Your task to perform on an android device: Show me recent news Image 0: 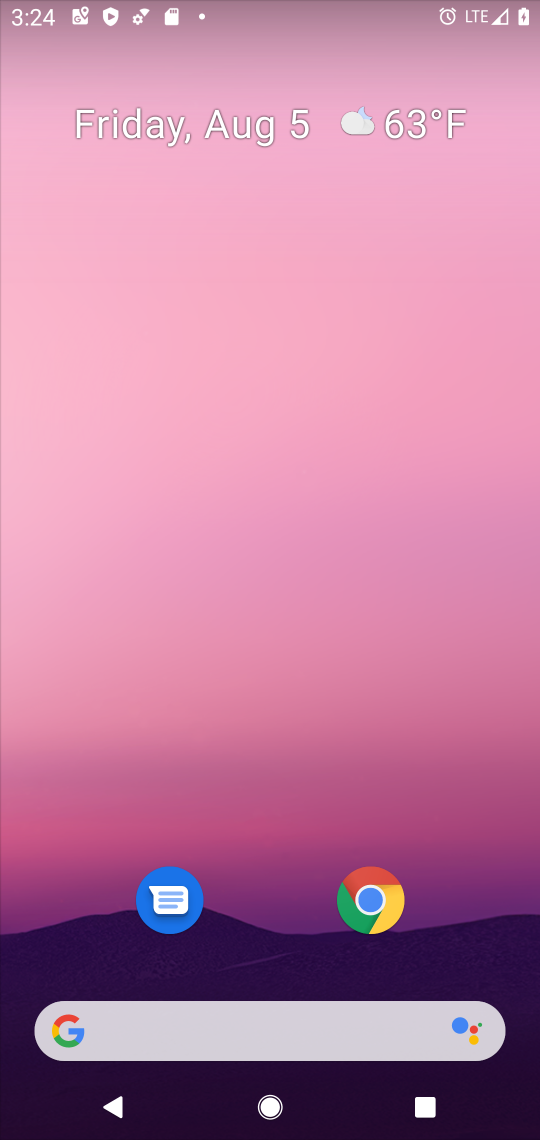
Step 0: click (215, 1026)
Your task to perform on an android device: Show me recent news Image 1: 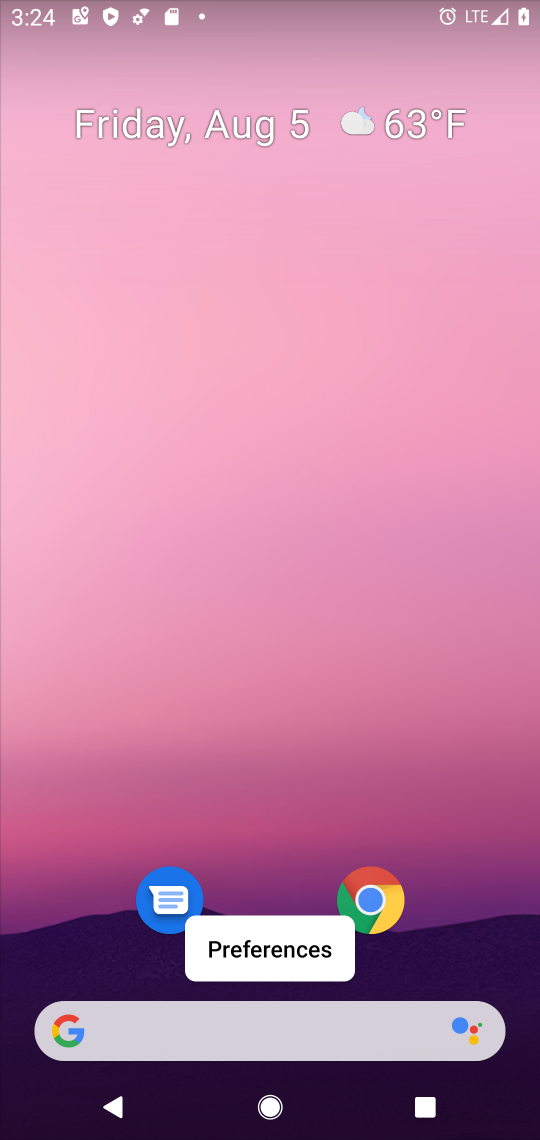
Step 1: click (244, 1055)
Your task to perform on an android device: Show me recent news Image 2: 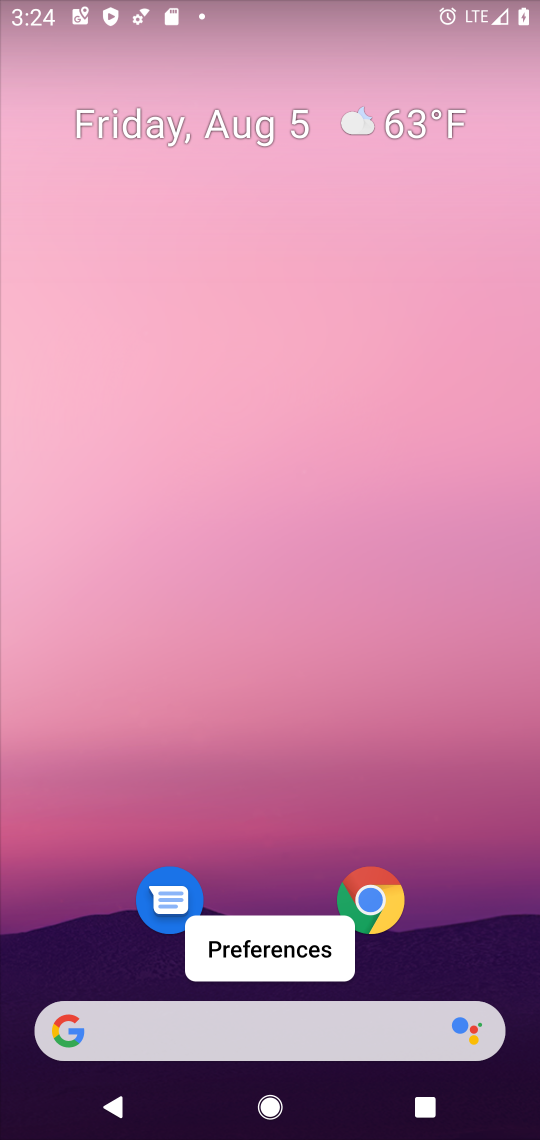
Step 2: click (246, 1027)
Your task to perform on an android device: Show me recent news Image 3: 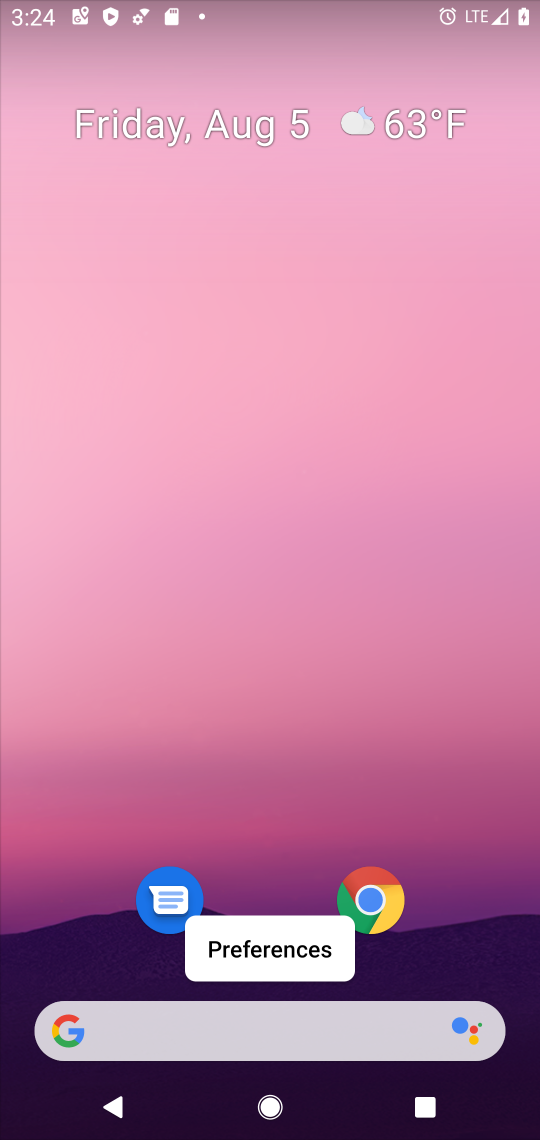
Step 3: click (211, 1030)
Your task to perform on an android device: Show me recent news Image 4: 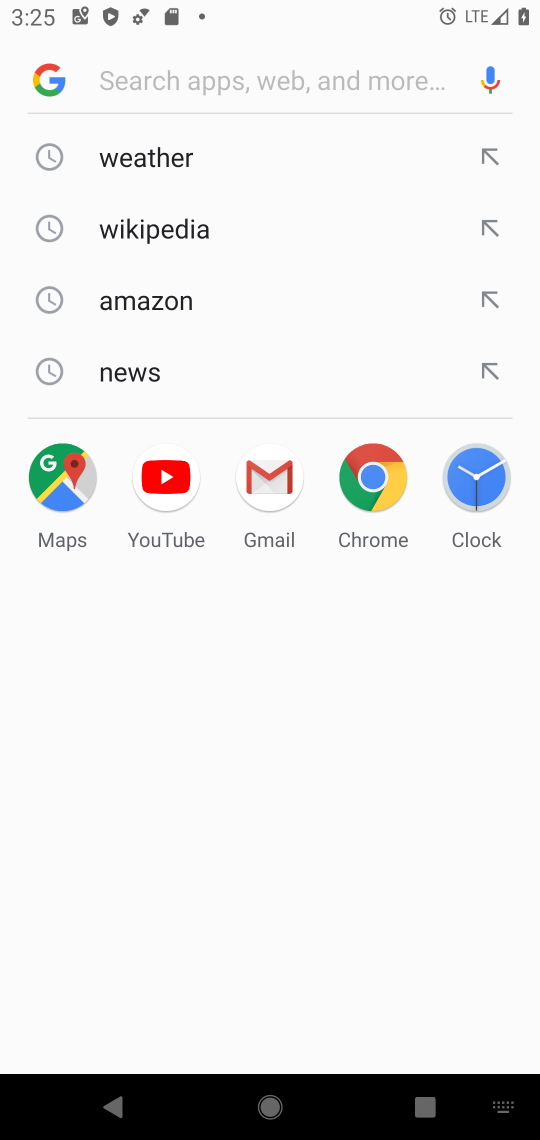
Step 4: click (213, 81)
Your task to perform on an android device: Show me recent news Image 5: 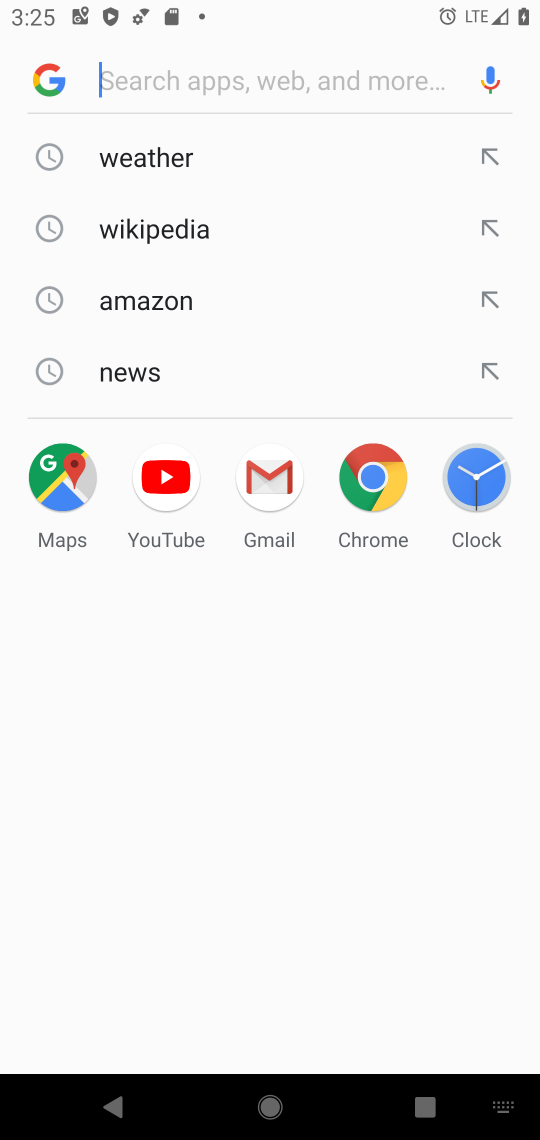
Step 5: type "recent news"
Your task to perform on an android device: Show me recent news Image 6: 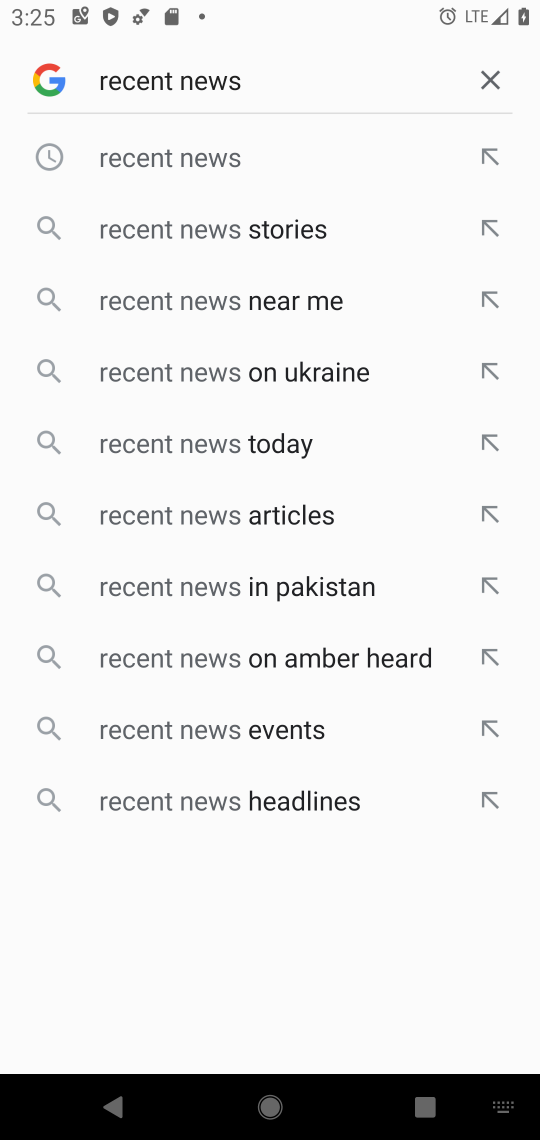
Step 6: click (211, 152)
Your task to perform on an android device: Show me recent news Image 7: 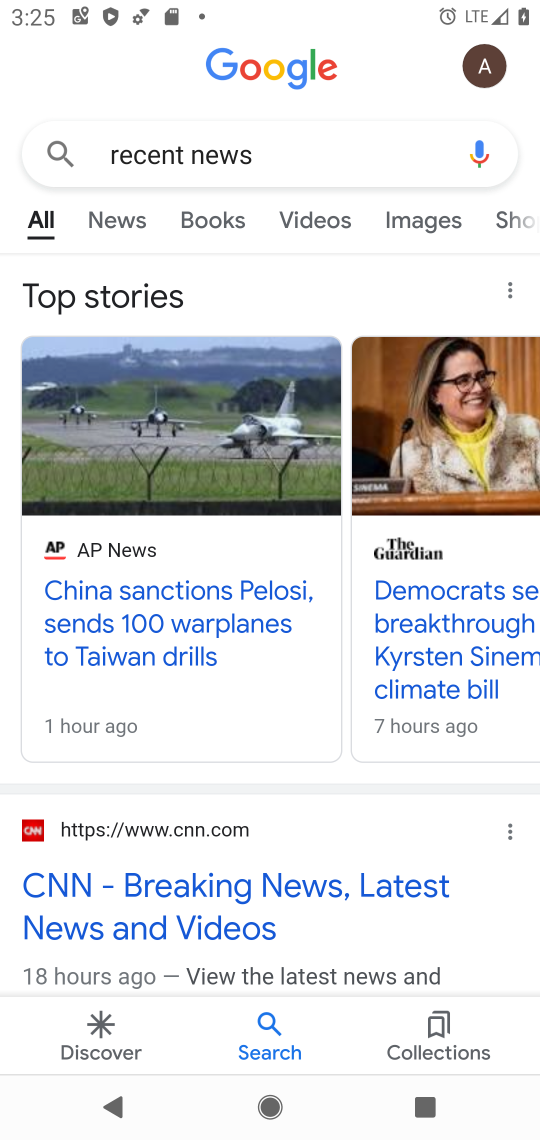
Step 7: task complete